Your task to perform on an android device: turn on bluetooth scan Image 0: 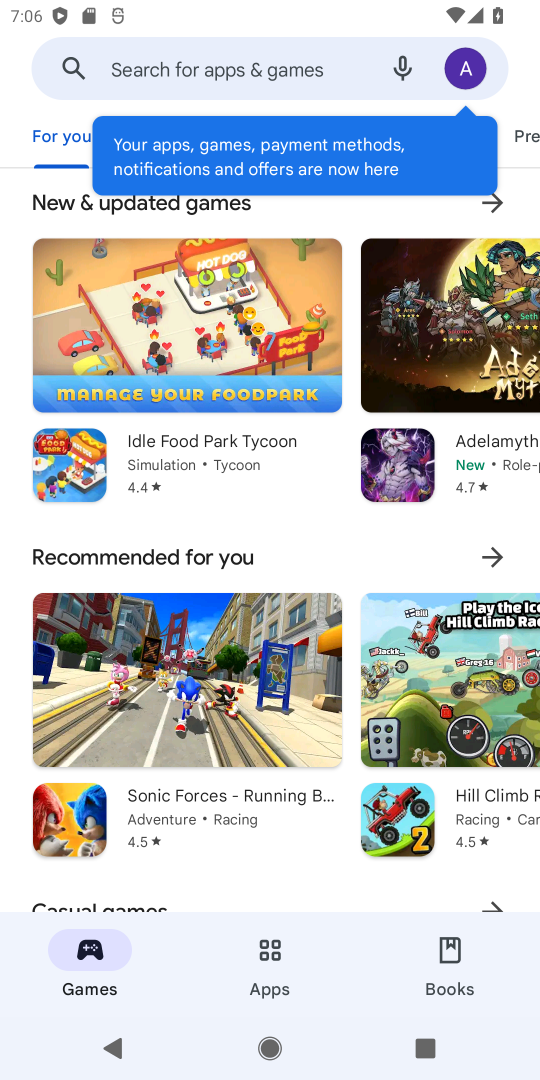
Step 0: press home button
Your task to perform on an android device: turn on bluetooth scan Image 1: 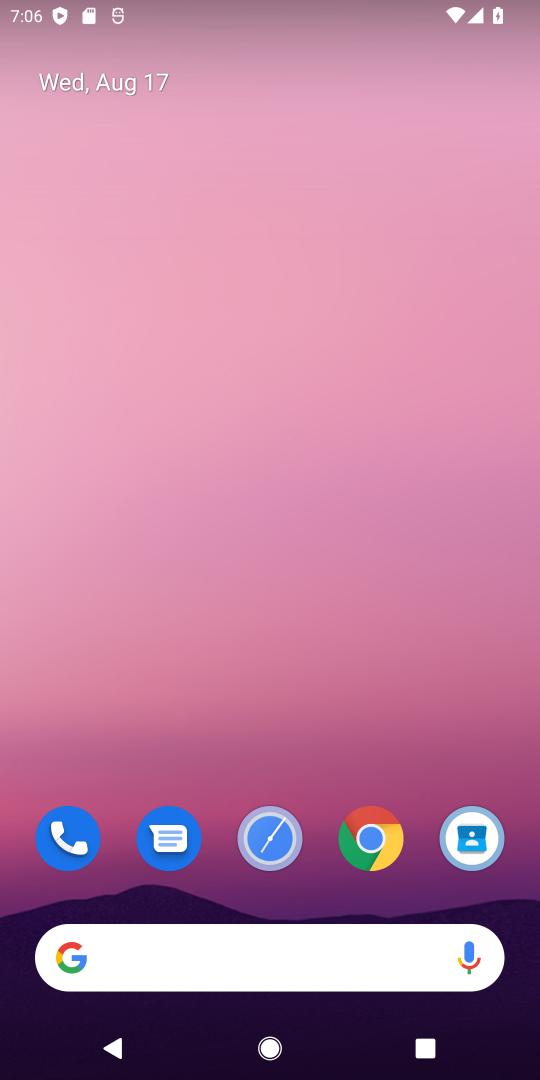
Step 1: drag from (416, 549) to (380, 174)
Your task to perform on an android device: turn on bluetooth scan Image 2: 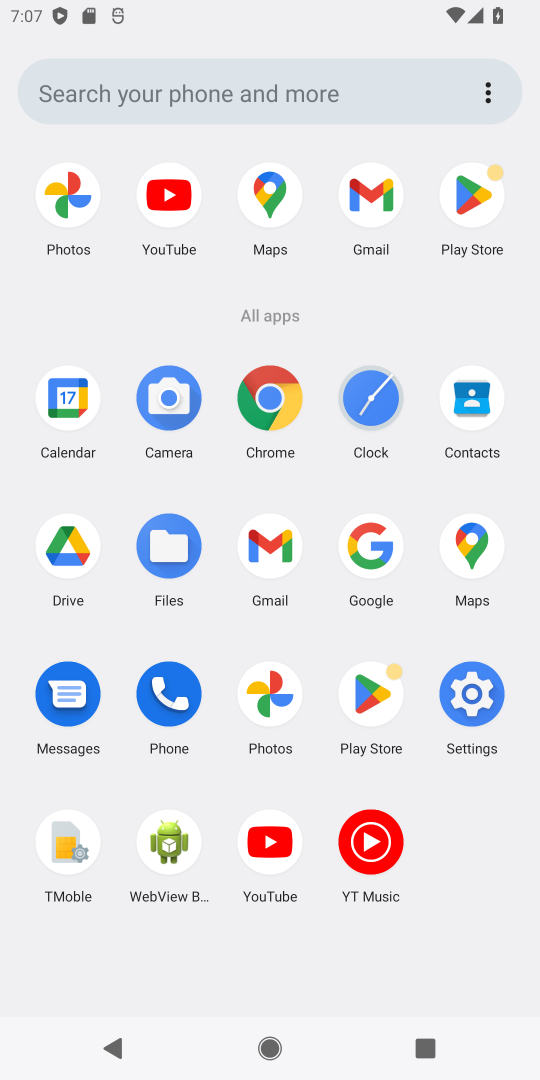
Step 2: click (491, 699)
Your task to perform on an android device: turn on bluetooth scan Image 3: 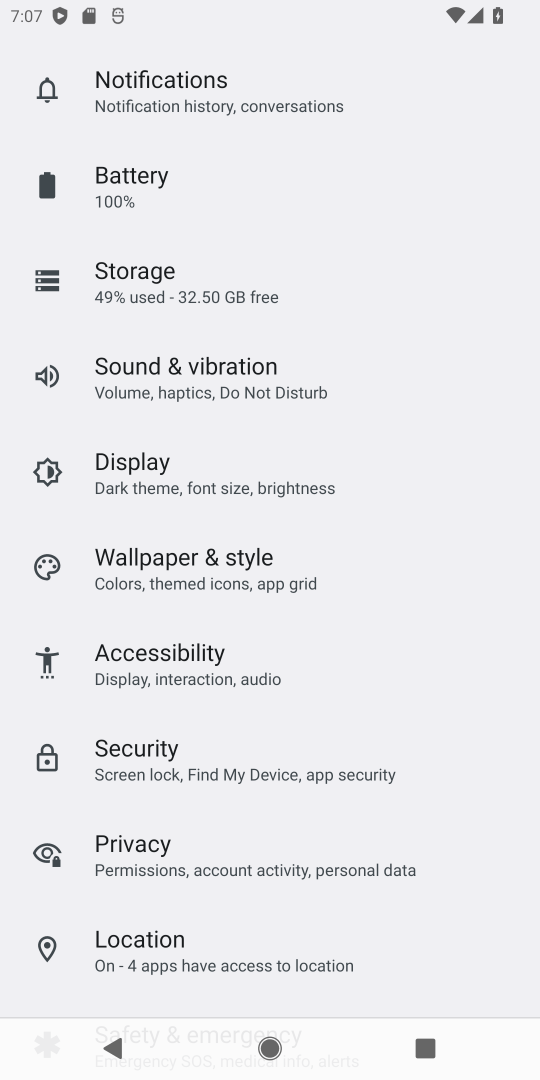
Step 3: drag from (267, 372) to (219, 719)
Your task to perform on an android device: turn on bluetooth scan Image 4: 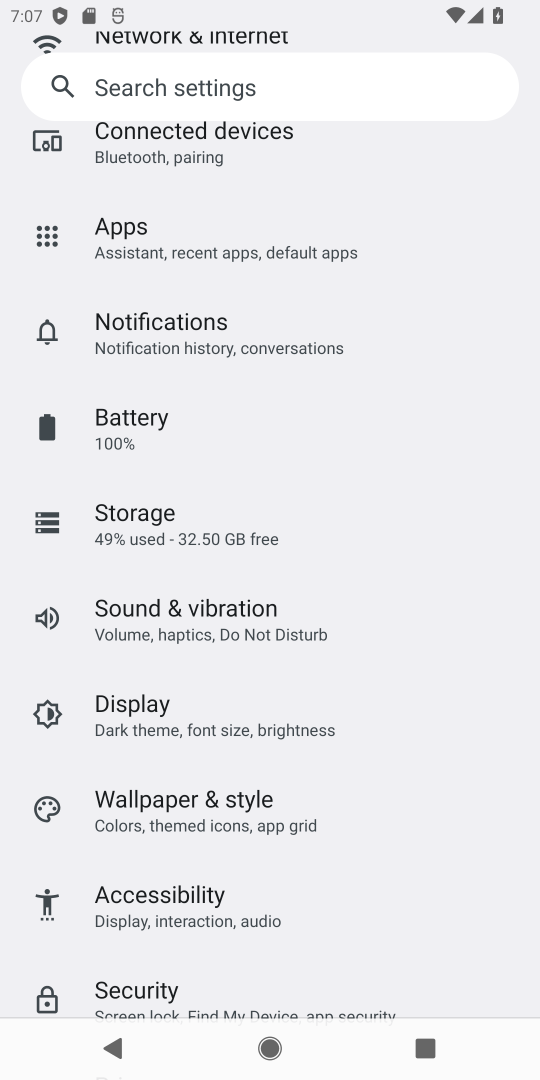
Step 4: drag from (206, 444) to (203, 867)
Your task to perform on an android device: turn on bluetooth scan Image 5: 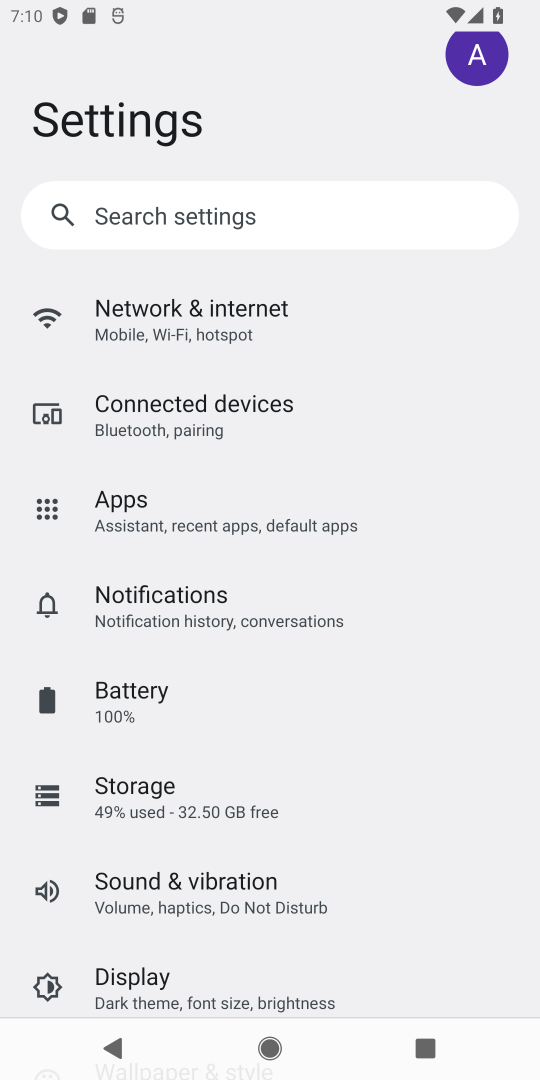
Step 5: click (298, 405)
Your task to perform on an android device: turn on bluetooth scan Image 6: 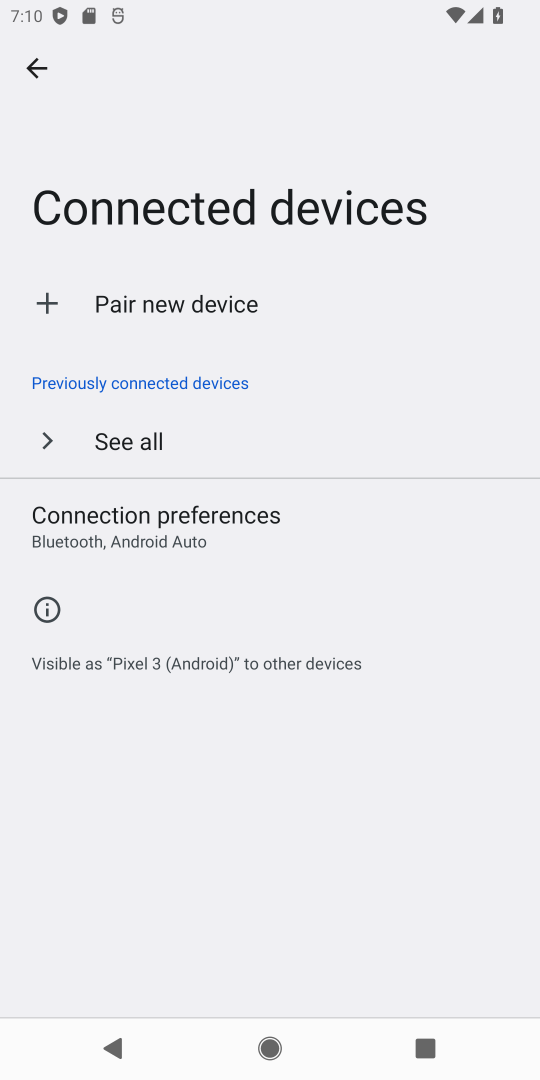
Step 6: click (248, 529)
Your task to perform on an android device: turn on bluetooth scan Image 7: 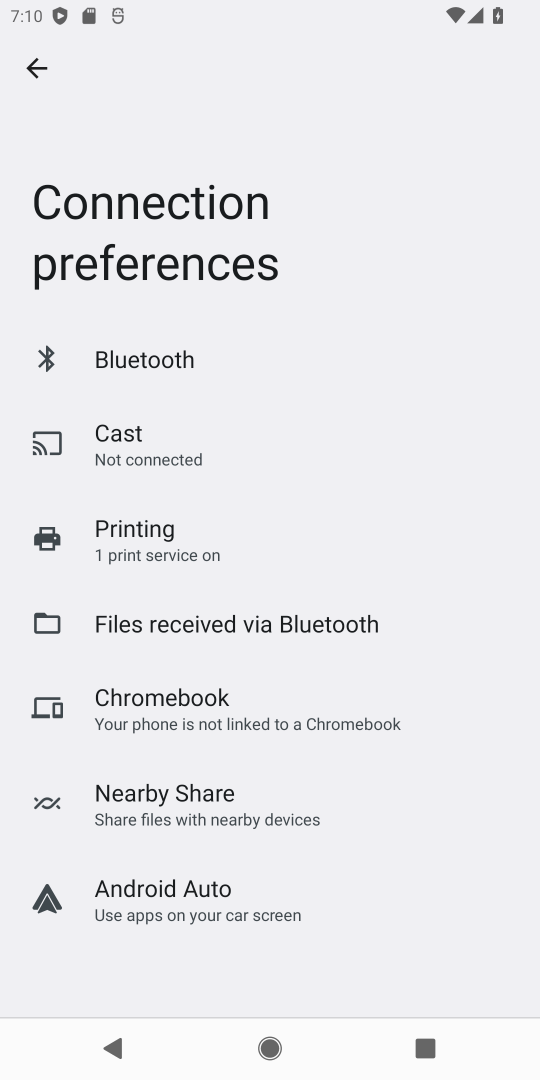
Step 7: click (151, 339)
Your task to perform on an android device: turn on bluetooth scan Image 8: 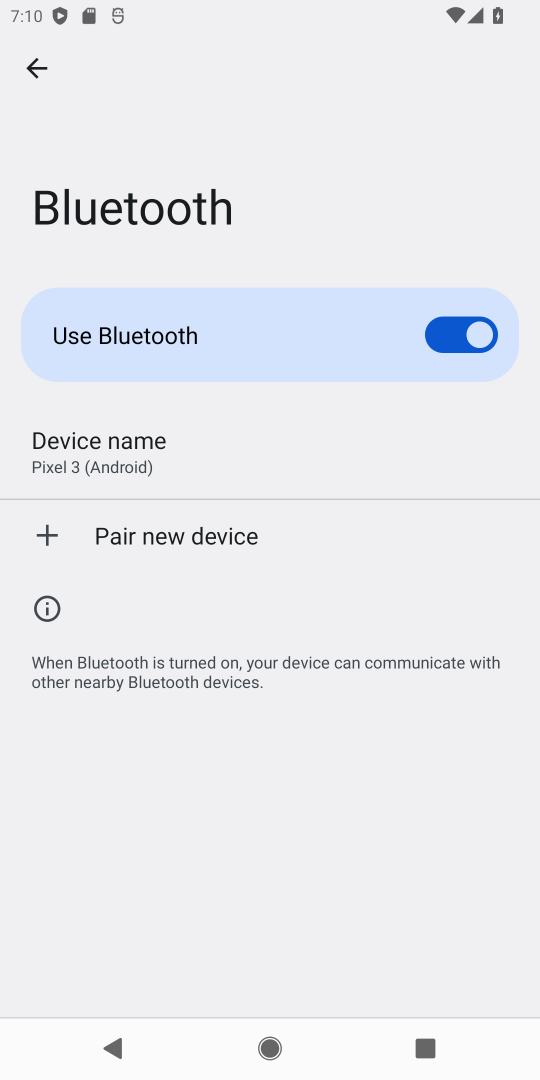
Step 8: task complete